Your task to perform on an android device: Search for the best rated 4K TV on Best Buy. Image 0: 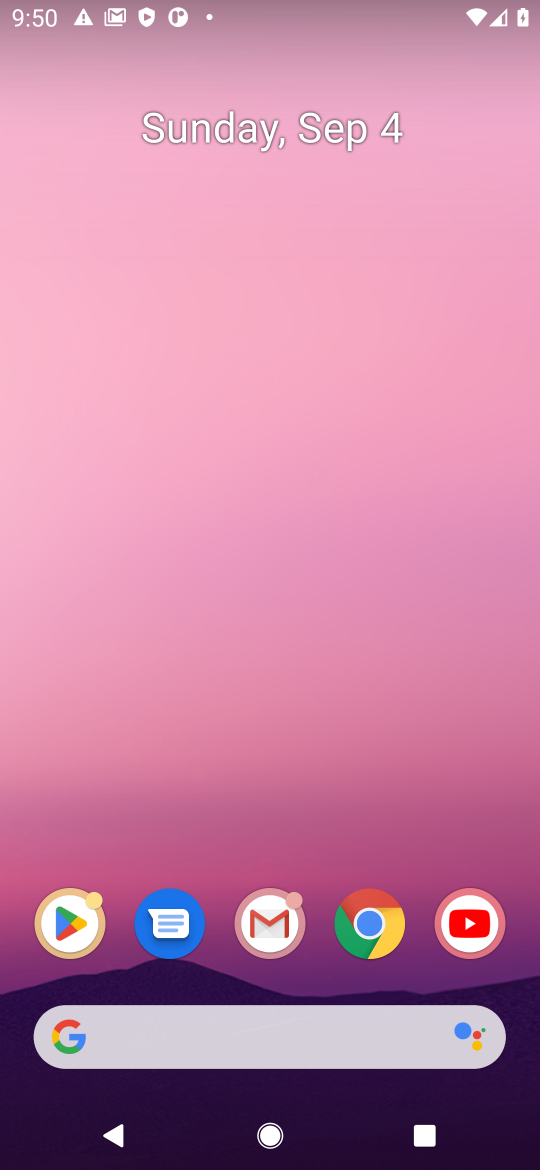
Step 0: press home button
Your task to perform on an android device: Search for the best rated 4K TV on Best Buy. Image 1: 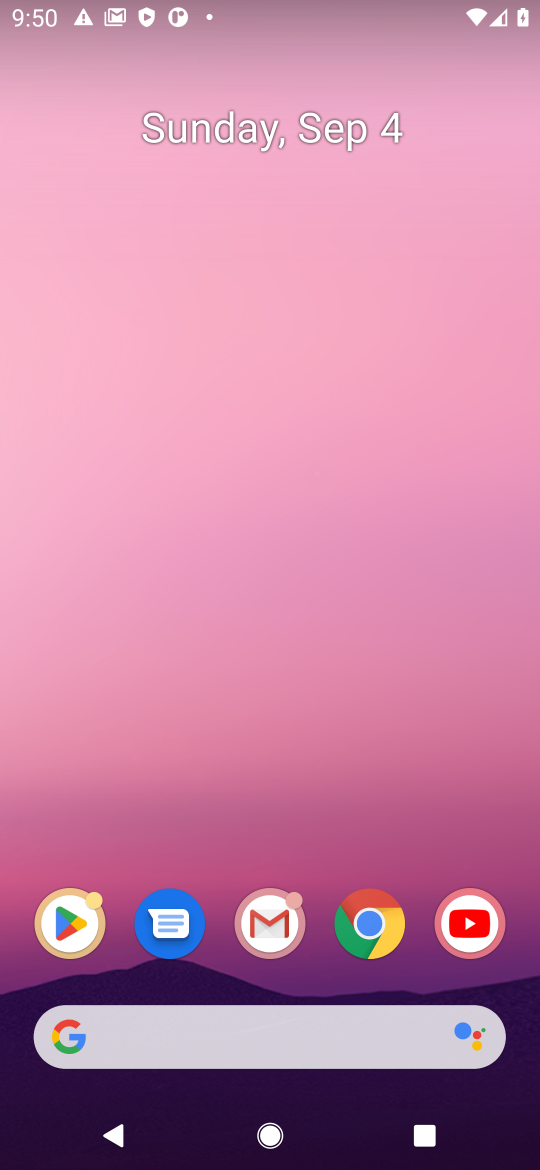
Step 1: click (376, 1026)
Your task to perform on an android device: Search for the best rated 4K TV on Best Buy. Image 2: 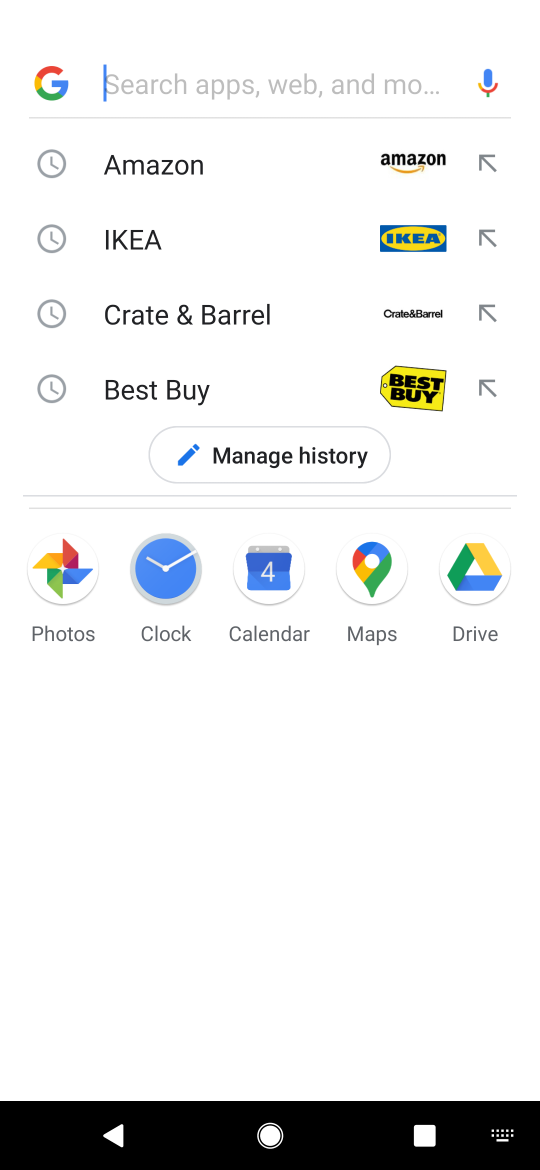
Step 2: press enter
Your task to perform on an android device: Search for the best rated 4K TV on Best Buy. Image 3: 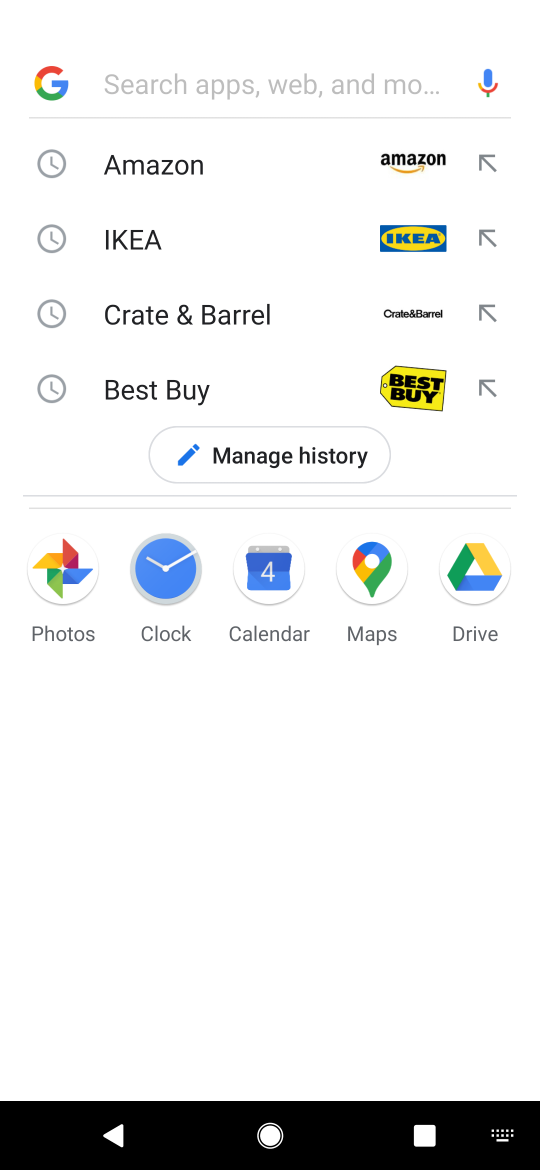
Step 3: type "best buy"
Your task to perform on an android device: Search for the best rated 4K TV on Best Buy. Image 4: 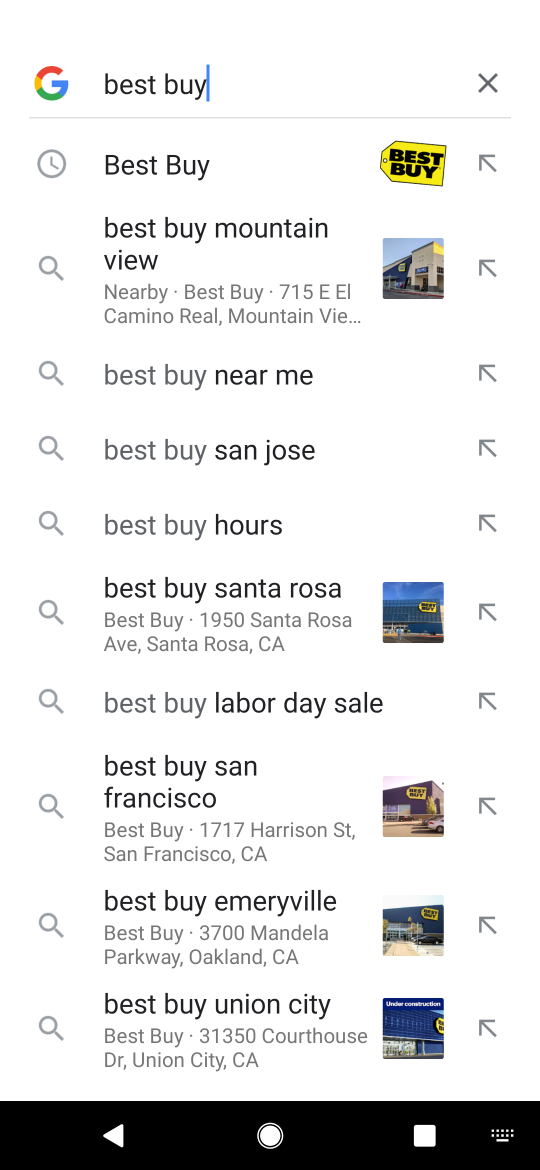
Step 4: click (192, 151)
Your task to perform on an android device: Search for the best rated 4K TV on Best Buy. Image 5: 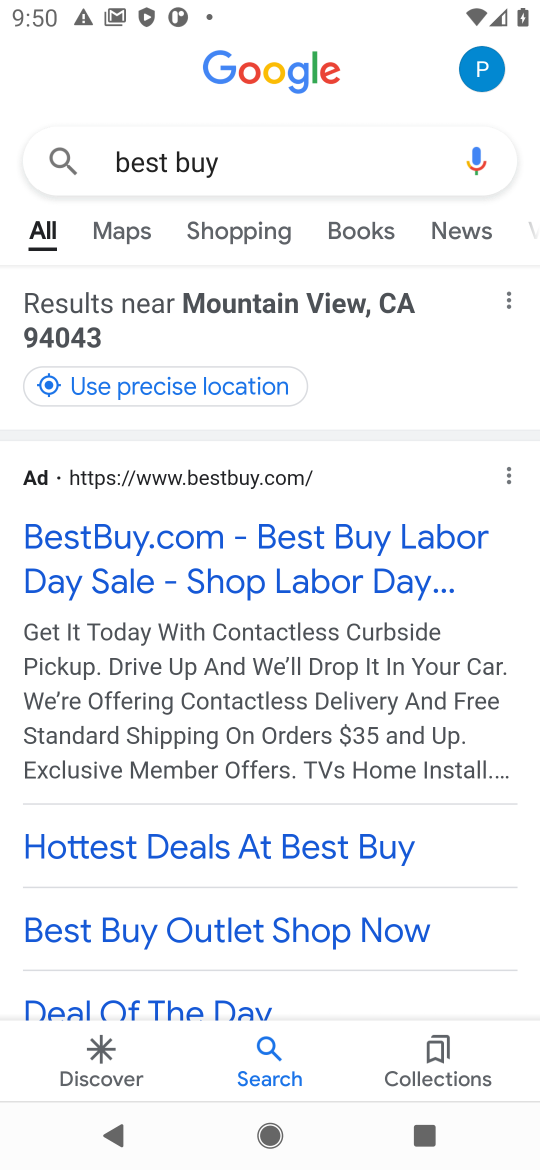
Step 5: click (149, 544)
Your task to perform on an android device: Search for the best rated 4K TV on Best Buy. Image 6: 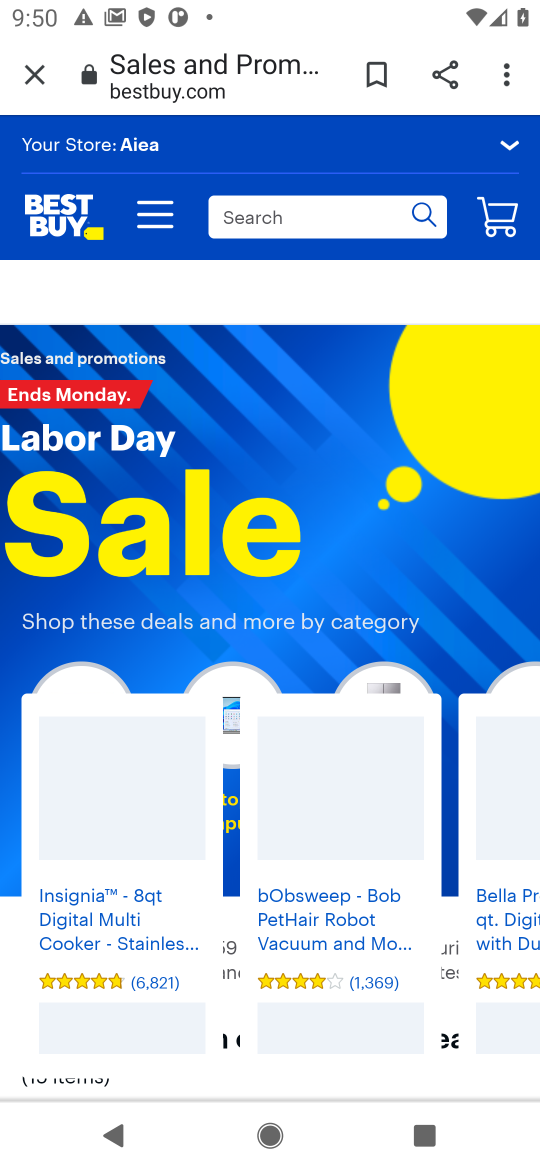
Step 6: click (311, 212)
Your task to perform on an android device: Search for the best rated 4K TV on Best Buy. Image 7: 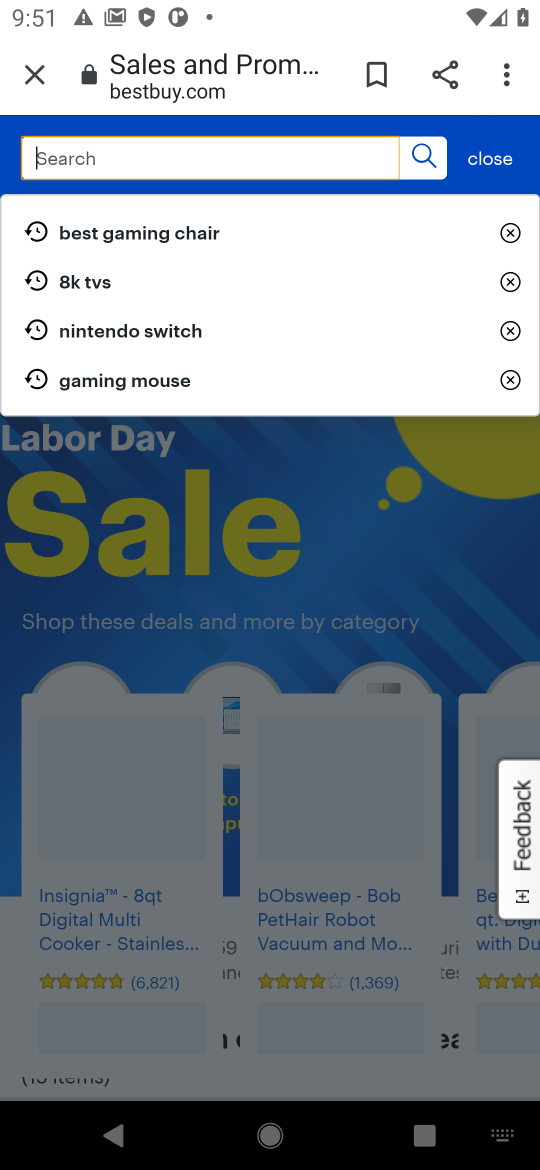
Step 7: press enter
Your task to perform on an android device: Search for the best rated 4K TV on Best Buy. Image 8: 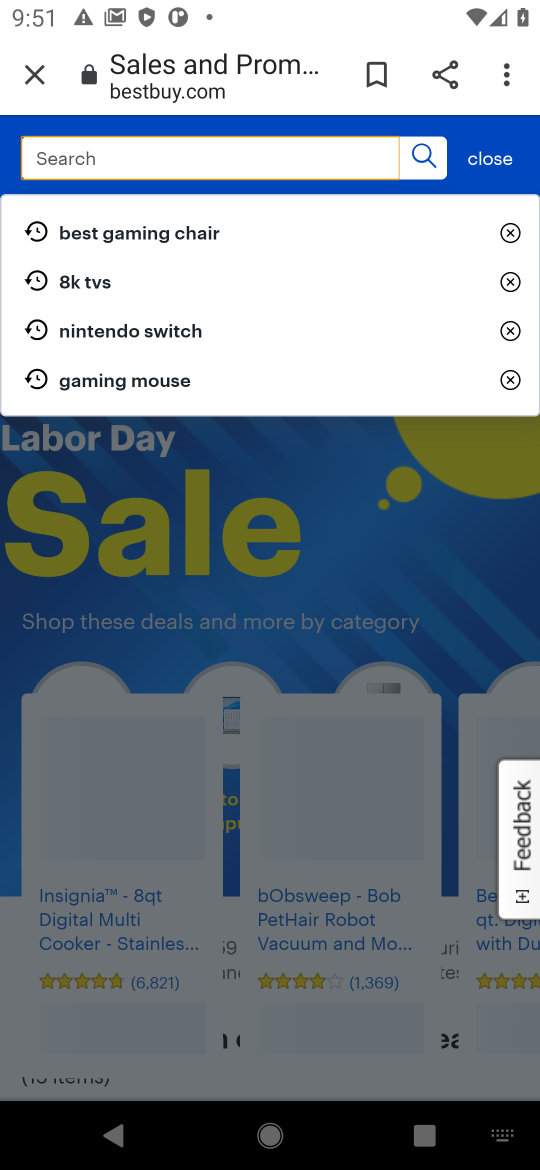
Step 8: type "best rated 4k tv"
Your task to perform on an android device: Search for the best rated 4K TV on Best Buy. Image 9: 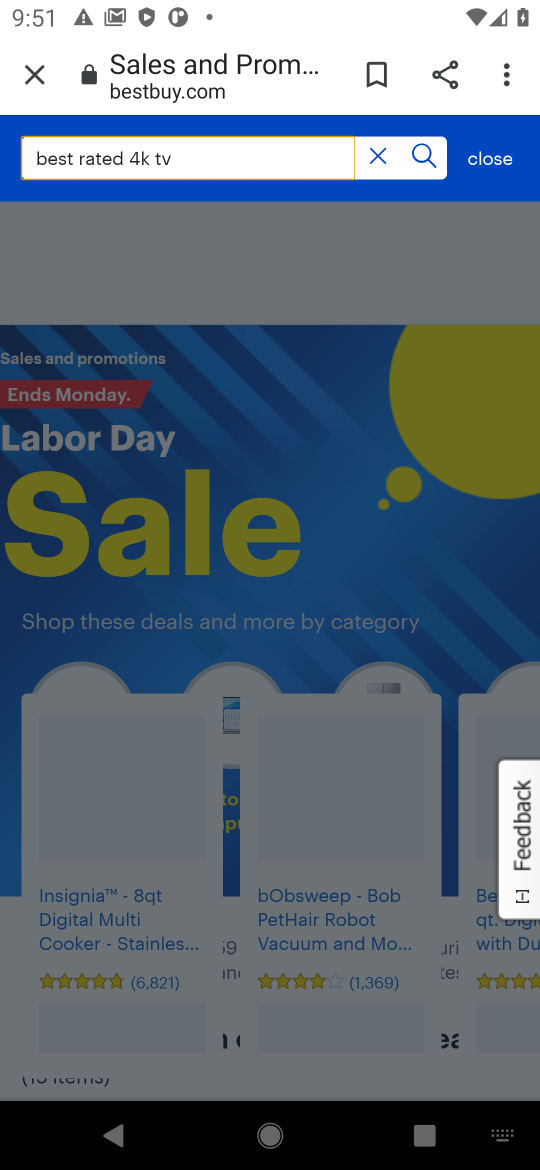
Step 9: click (415, 139)
Your task to perform on an android device: Search for the best rated 4K TV on Best Buy. Image 10: 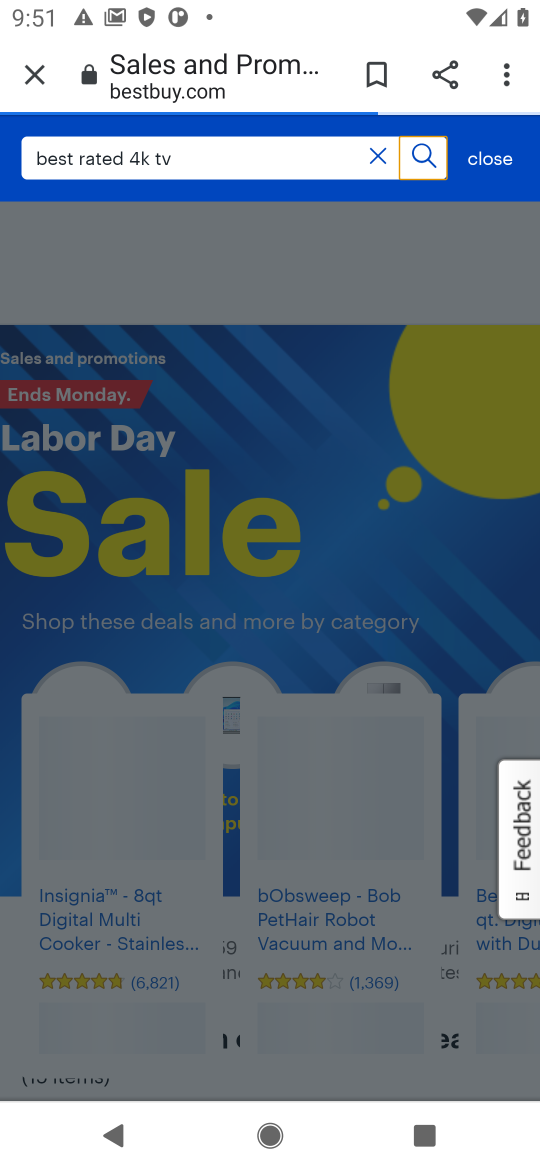
Step 10: click (415, 157)
Your task to perform on an android device: Search for the best rated 4K TV on Best Buy. Image 11: 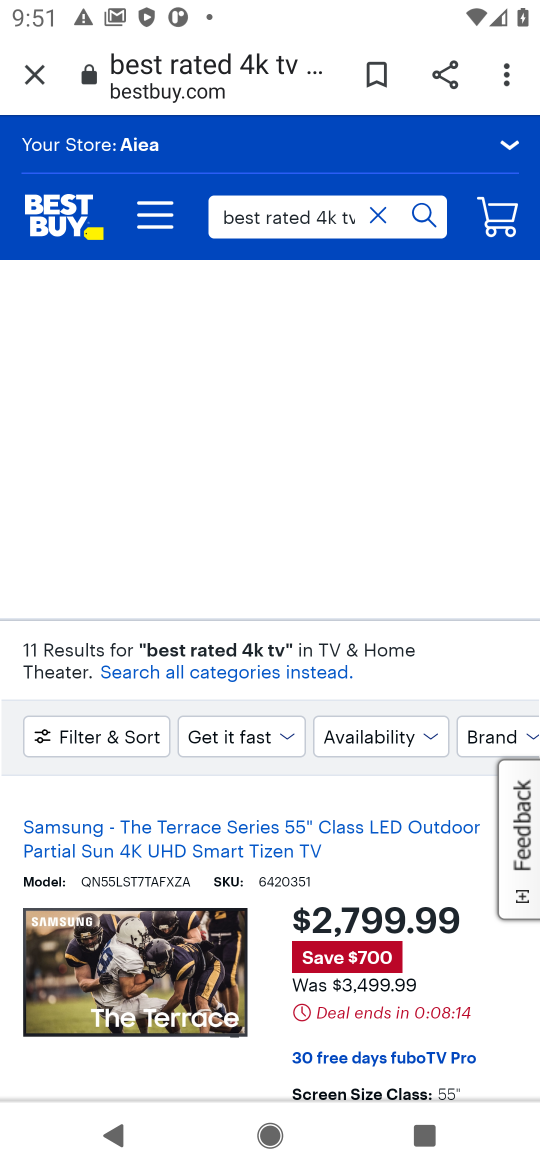
Step 11: task complete